Your task to perform on an android device: allow cookies in the chrome app Image 0: 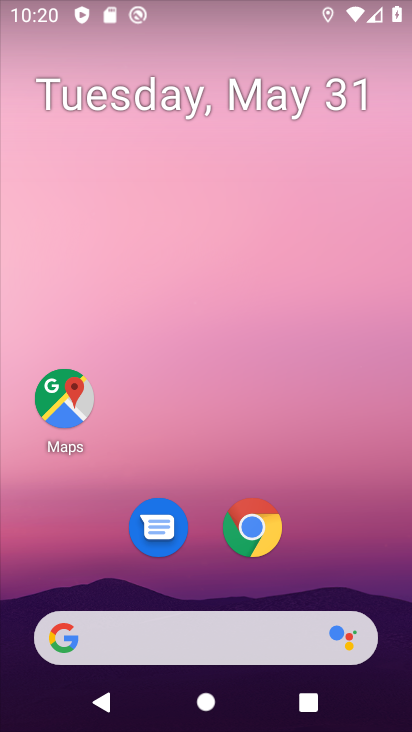
Step 0: click (268, 542)
Your task to perform on an android device: allow cookies in the chrome app Image 1: 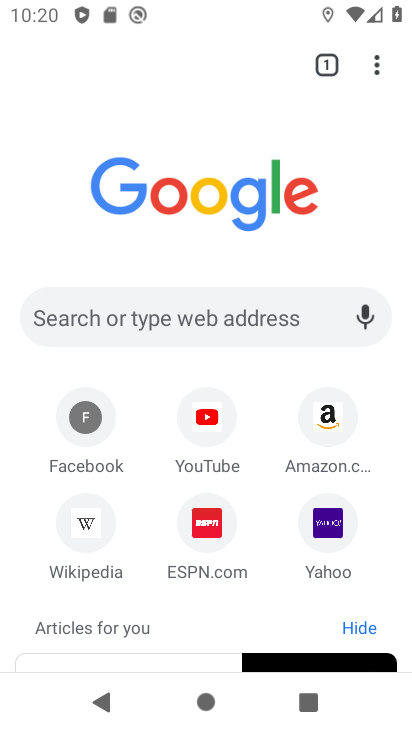
Step 1: click (383, 78)
Your task to perform on an android device: allow cookies in the chrome app Image 2: 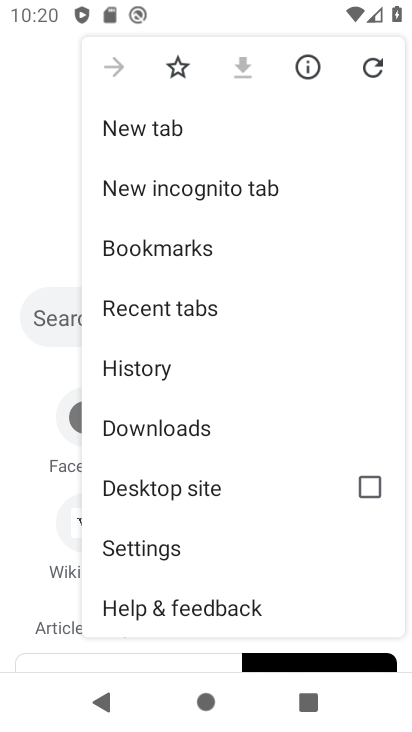
Step 2: click (184, 543)
Your task to perform on an android device: allow cookies in the chrome app Image 3: 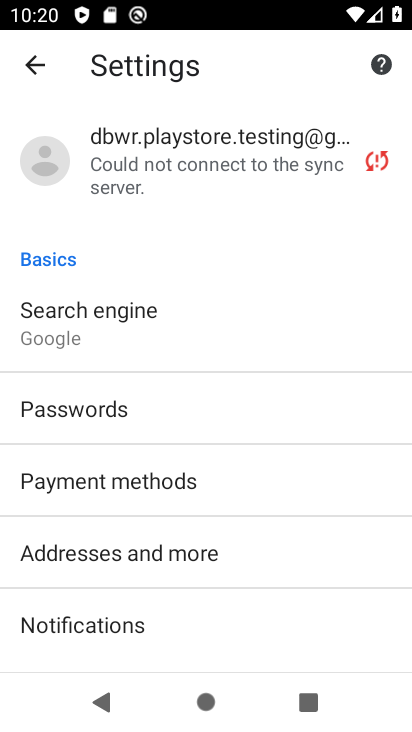
Step 3: drag from (207, 618) to (217, 217)
Your task to perform on an android device: allow cookies in the chrome app Image 4: 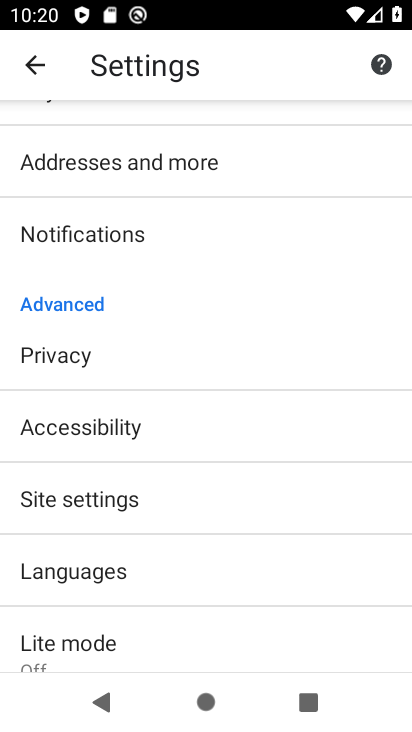
Step 4: click (197, 494)
Your task to perform on an android device: allow cookies in the chrome app Image 5: 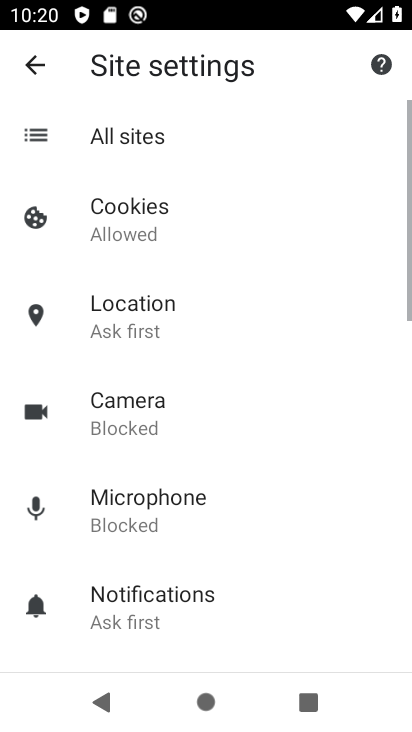
Step 5: click (209, 217)
Your task to perform on an android device: allow cookies in the chrome app Image 6: 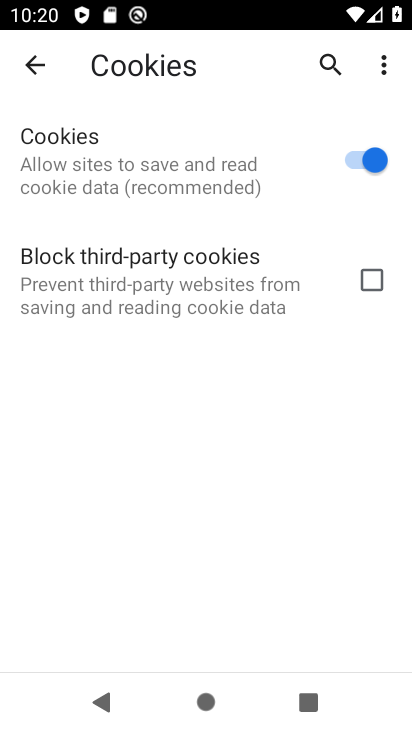
Step 6: task complete